Your task to perform on an android device: check out phone information Image 0: 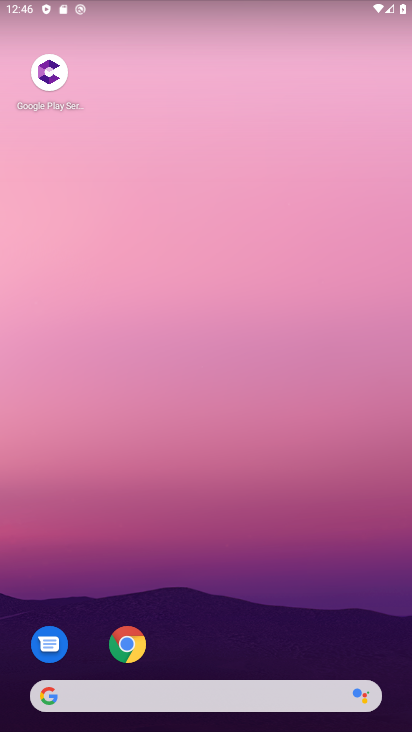
Step 0: drag from (287, 601) to (259, 31)
Your task to perform on an android device: check out phone information Image 1: 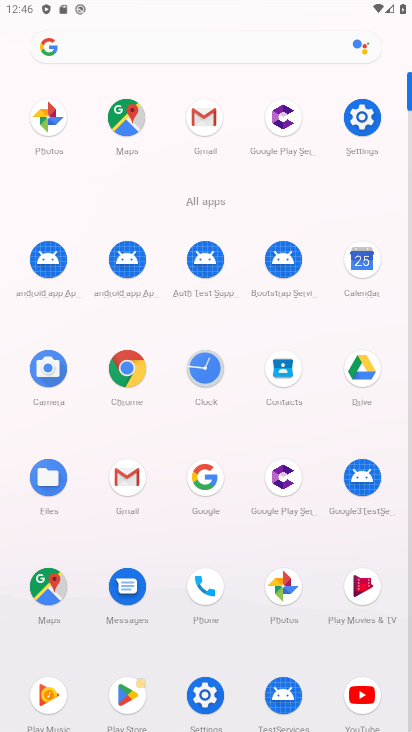
Step 1: click (198, 583)
Your task to perform on an android device: check out phone information Image 2: 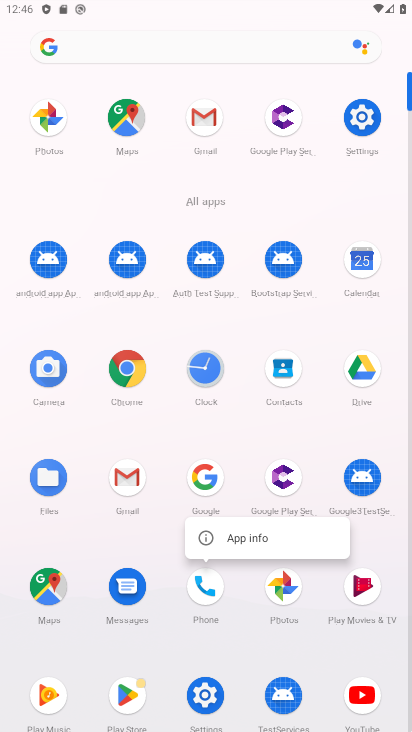
Step 2: click (251, 532)
Your task to perform on an android device: check out phone information Image 3: 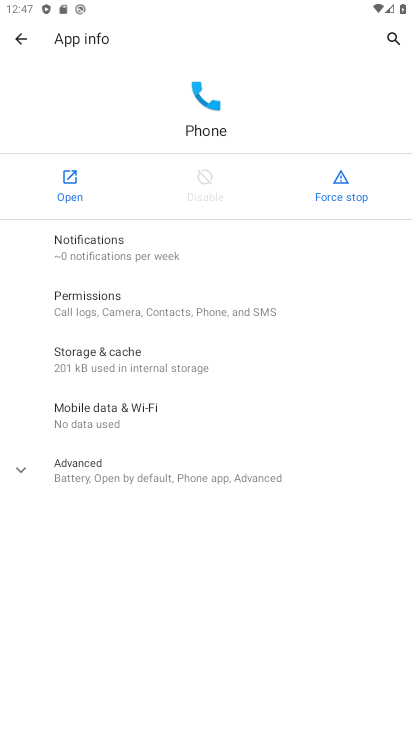
Step 3: task complete